Your task to perform on an android device: find photos in the google photos app Image 0: 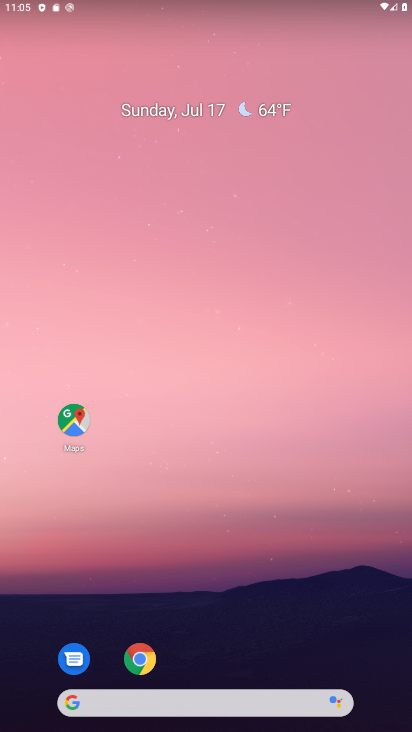
Step 0: drag from (283, 611) to (229, 373)
Your task to perform on an android device: find photos in the google photos app Image 1: 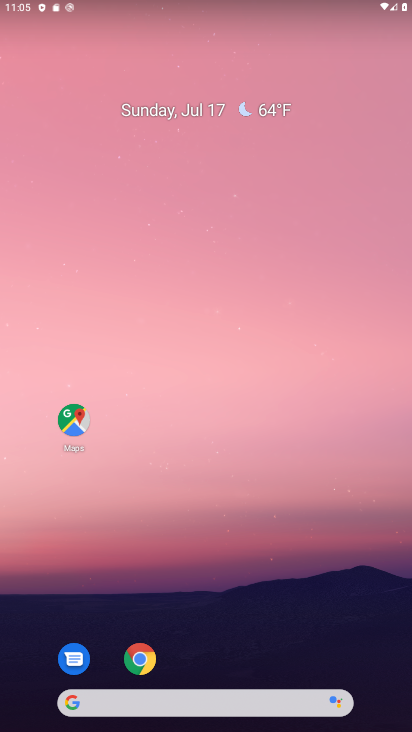
Step 1: drag from (210, 455) to (206, 137)
Your task to perform on an android device: find photos in the google photos app Image 2: 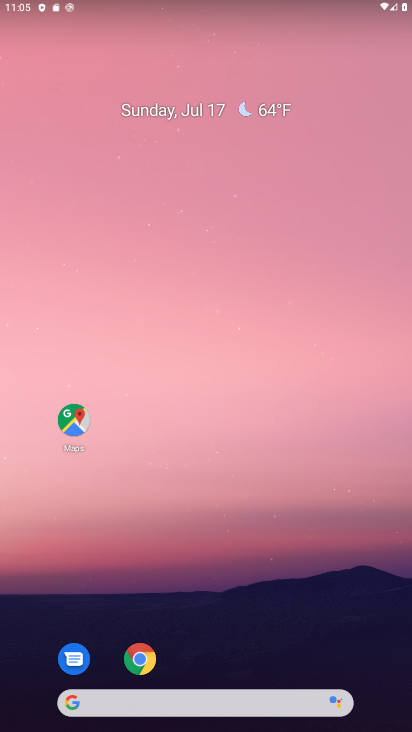
Step 2: drag from (223, 554) to (225, 63)
Your task to perform on an android device: find photos in the google photos app Image 3: 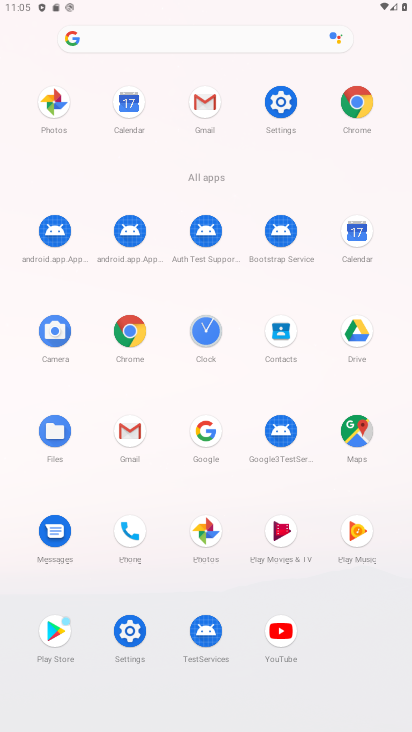
Step 3: click (202, 534)
Your task to perform on an android device: find photos in the google photos app Image 4: 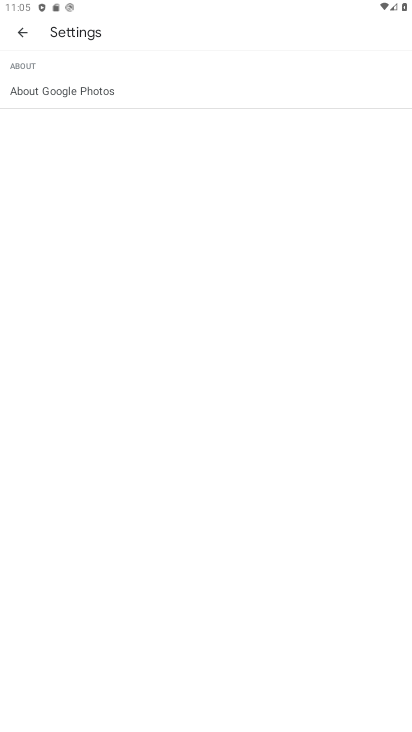
Step 4: click (15, 31)
Your task to perform on an android device: find photos in the google photos app Image 5: 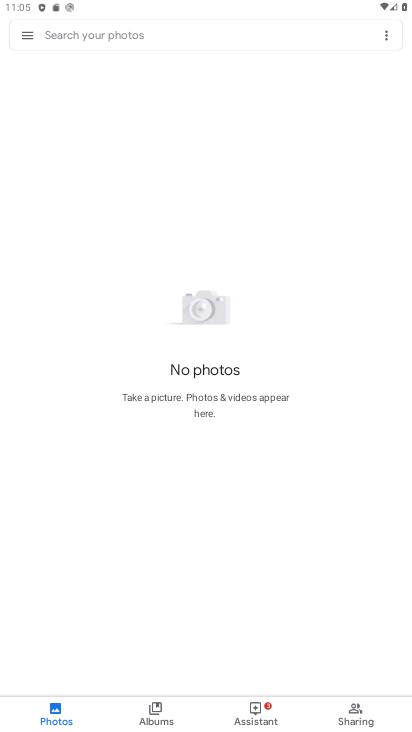
Step 5: click (287, 374)
Your task to perform on an android device: find photos in the google photos app Image 6: 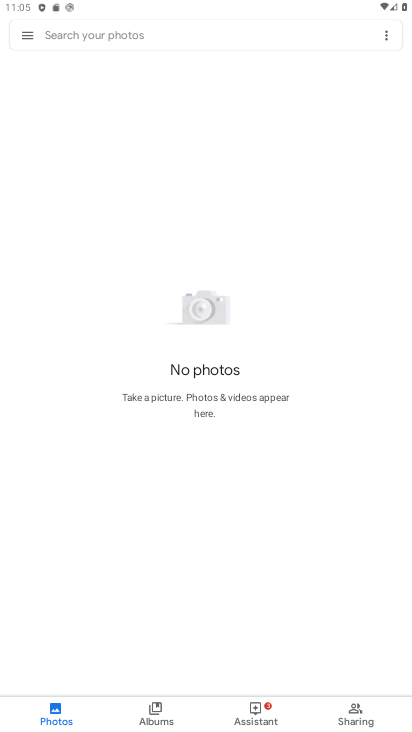
Step 6: task complete